Your task to perform on an android device: Open Google Chrome and click the shortcut for Amazon.com Image 0: 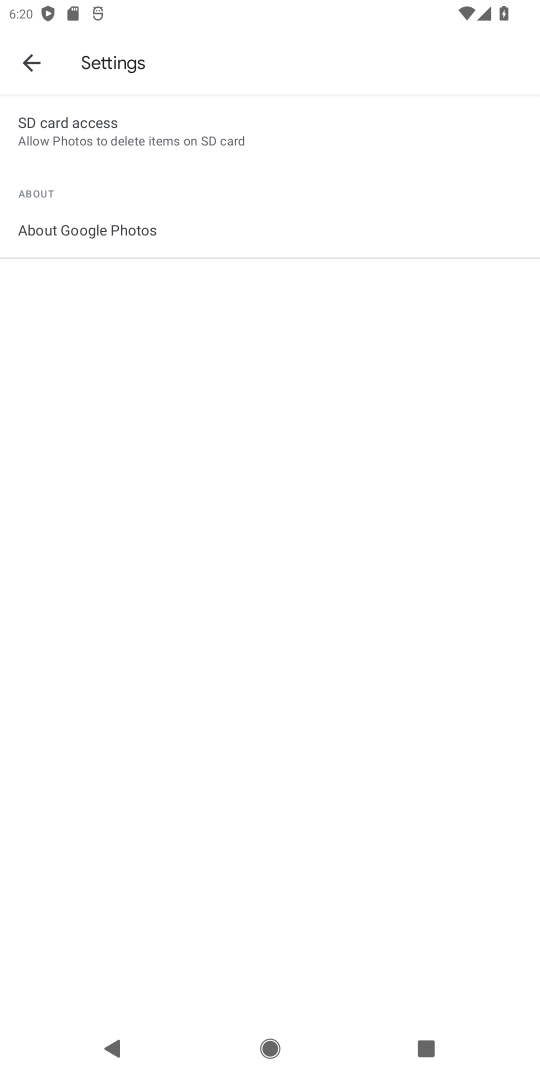
Step 0: press home button
Your task to perform on an android device: Open Google Chrome and click the shortcut for Amazon.com Image 1: 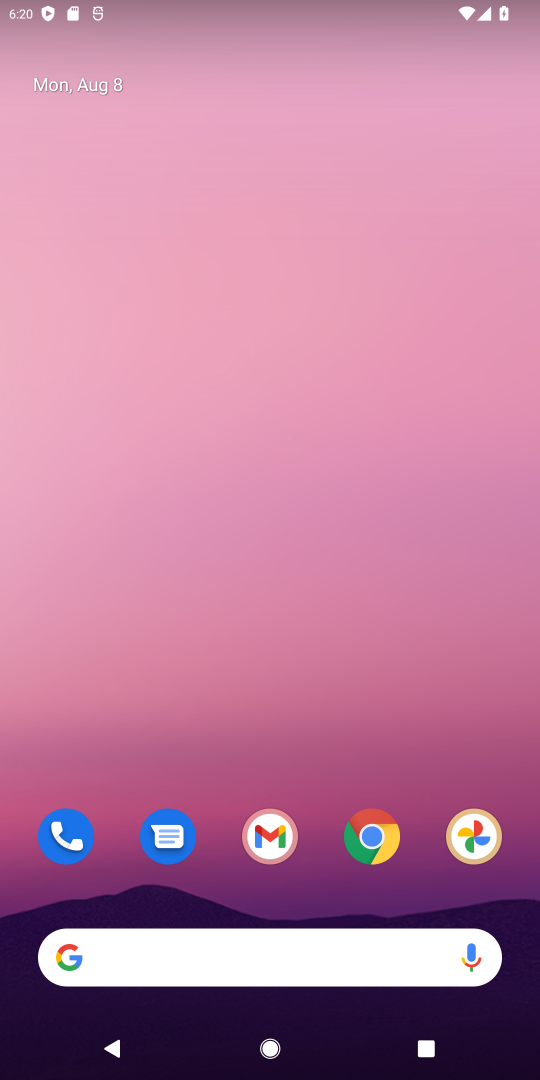
Step 1: drag from (334, 723) to (321, 121)
Your task to perform on an android device: Open Google Chrome and click the shortcut for Amazon.com Image 2: 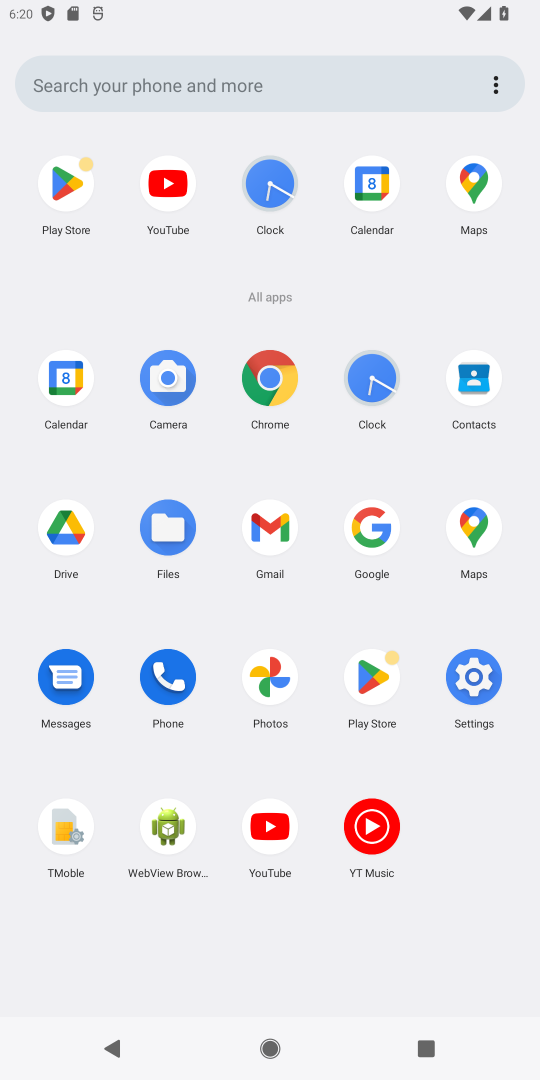
Step 2: click (268, 407)
Your task to perform on an android device: Open Google Chrome and click the shortcut for Amazon.com Image 3: 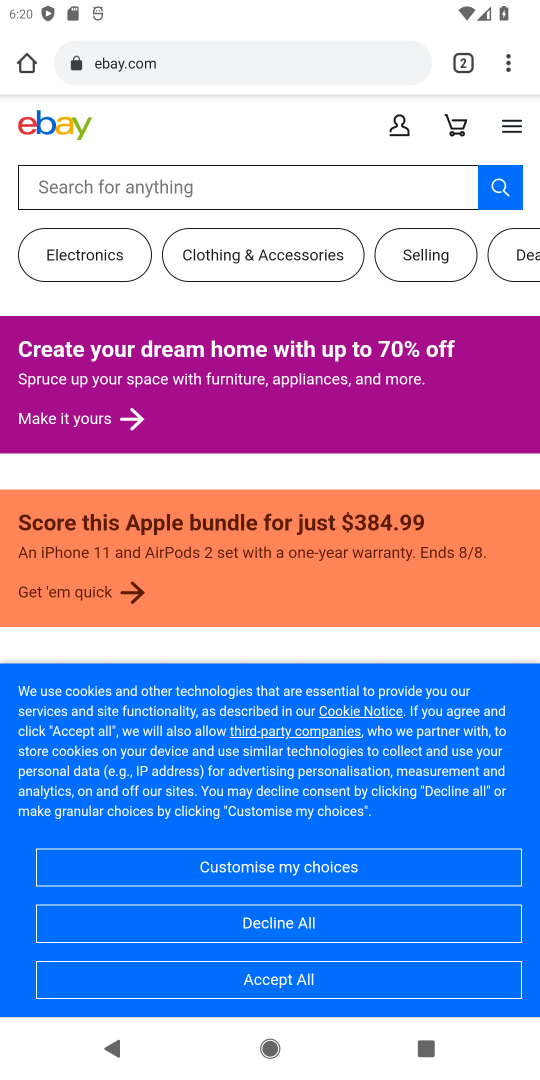
Step 3: click (476, 72)
Your task to perform on an android device: Open Google Chrome and click the shortcut for Amazon.com Image 4: 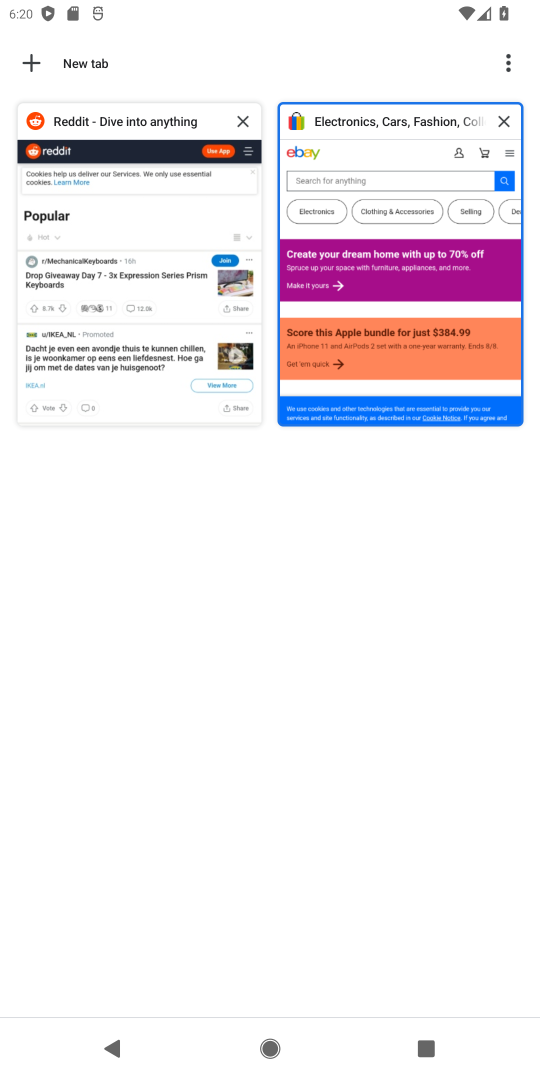
Step 4: click (94, 60)
Your task to perform on an android device: Open Google Chrome and click the shortcut for Amazon.com Image 5: 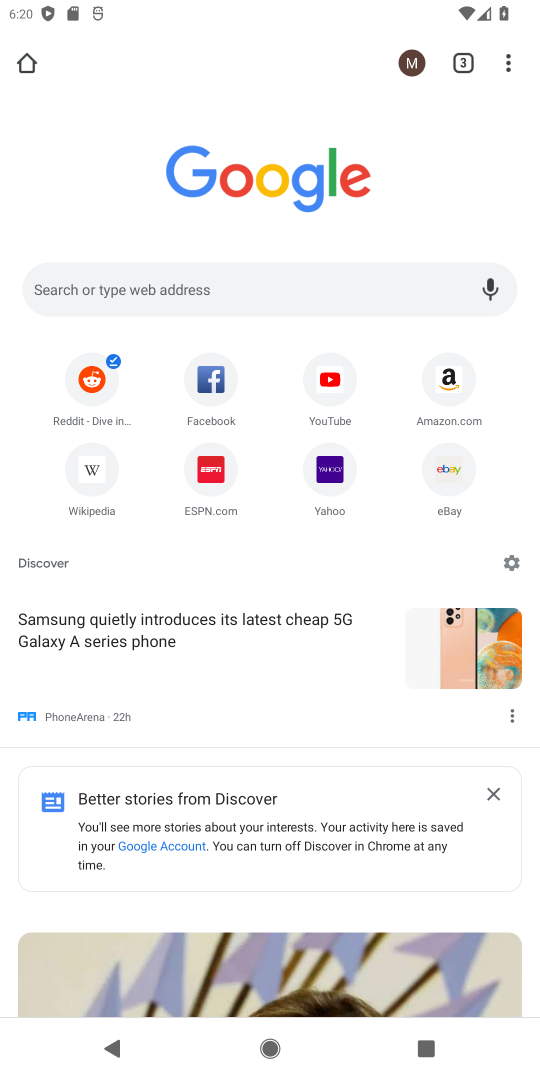
Step 5: click (440, 398)
Your task to perform on an android device: Open Google Chrome and click the shortcut for Amazon.com Image 6: 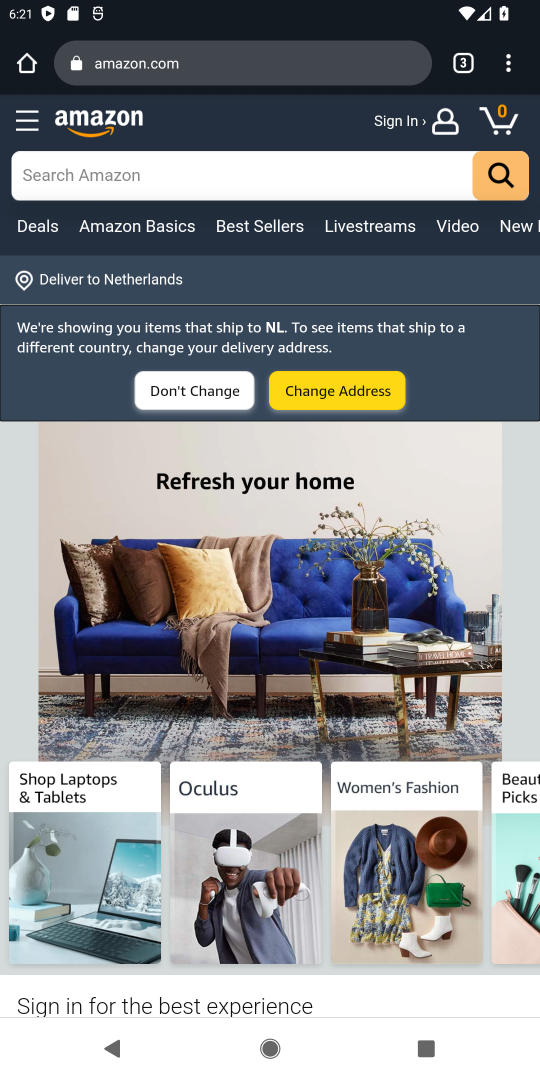
Step 6: task complete